Your task to perform on an android device: turn off airplane mode Image 0: 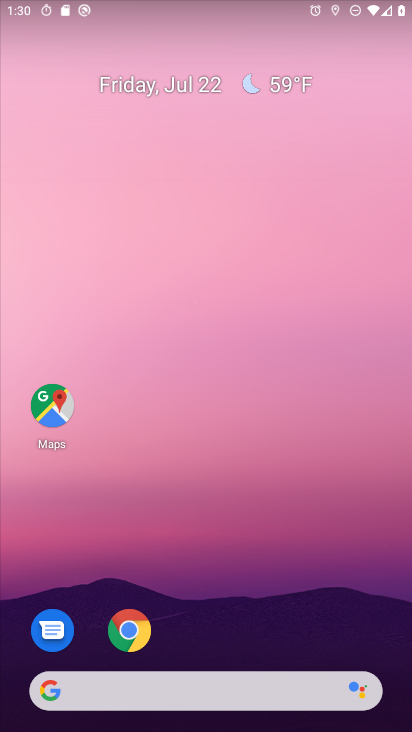
Step 0: press home button
Your task to perform on an android device: turn off airplane mode Image 1: 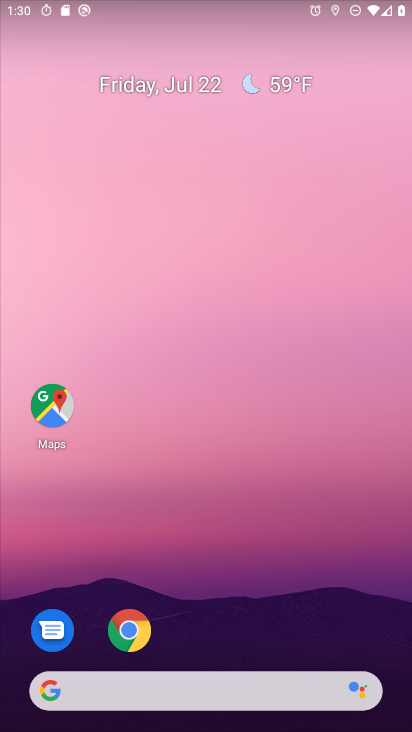
Step 1: task complete